Your task to perform on an android device: turn on the 24-hour format for clock Image 0: 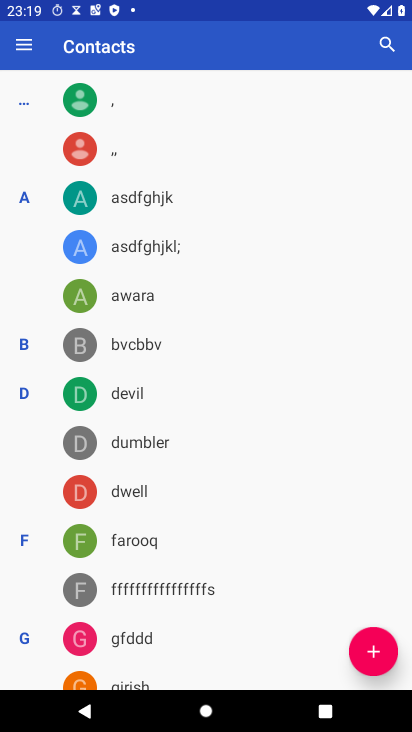
Step 0: press home button
Your task to perform on an android device: turn on the 24-hour format for clock Image 1: 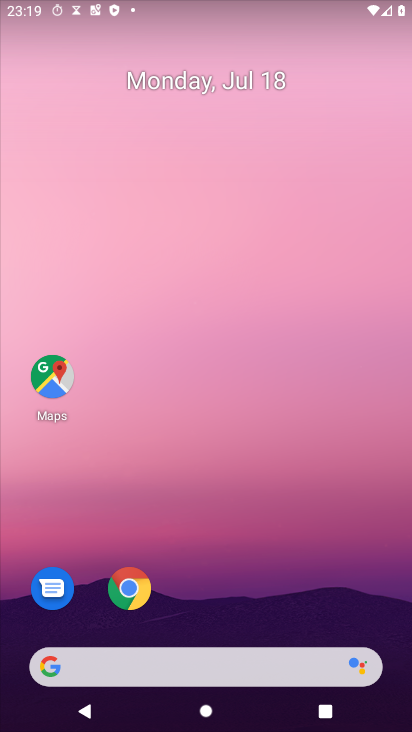
Step 1: drag from (147, 666) to (262, 123)
Your task to perform on an android device: turn on the 24-hour format for clock Image 2: 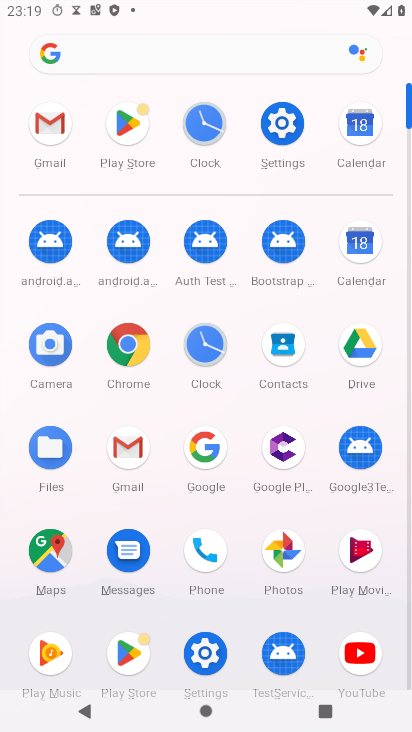
Step 2: click (200, 125)
Your task to perform on an android device: turn on the 24-hour format for clock Image 3: 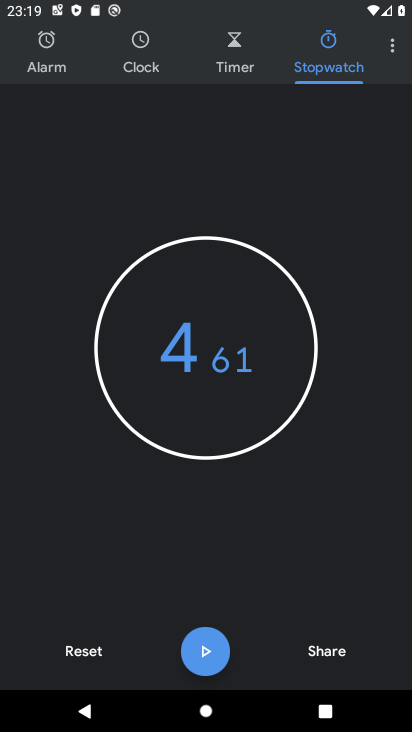
Step 3: click (390, 50)
Your task to perform on an android device: turn on the 24-hour format for clock Image 4: 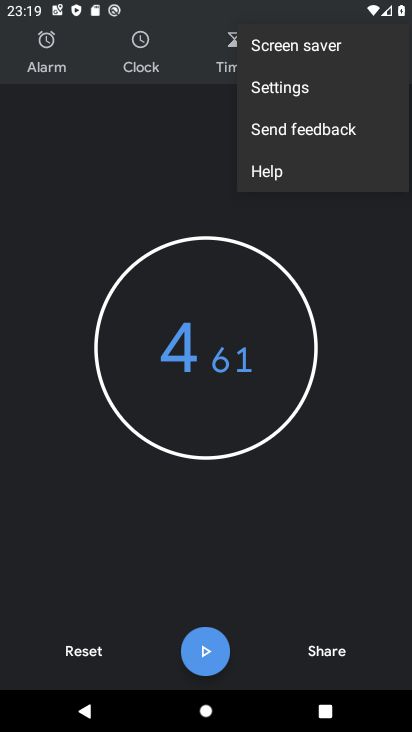
Step 4: click (286, 92)
Your task to perform on an android device: turn on the 24-hour format for clock Image 5: 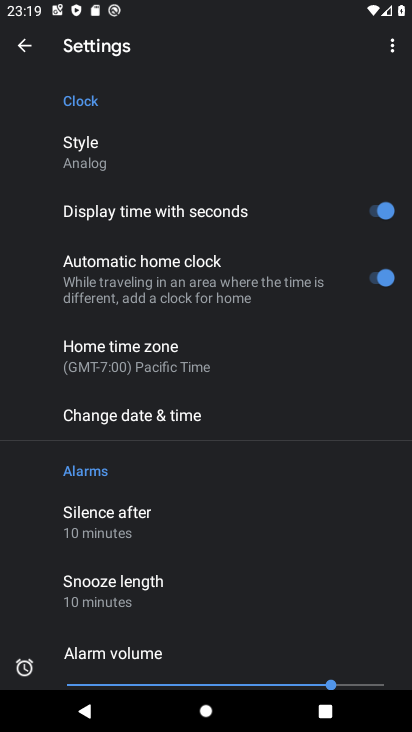
Step 5: click (116, 420)
Your task to perform on an android device: turn on the 24-hour format for clock Image 6: 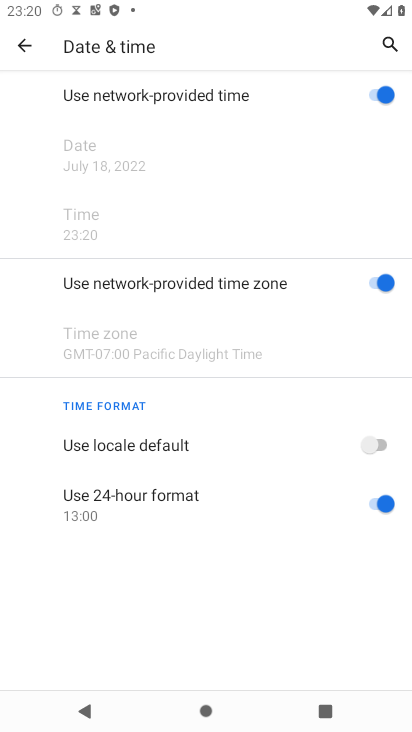
Step 6: task complete